Your task to perform on an android device: toggle javascript in the chrome app Image 0: 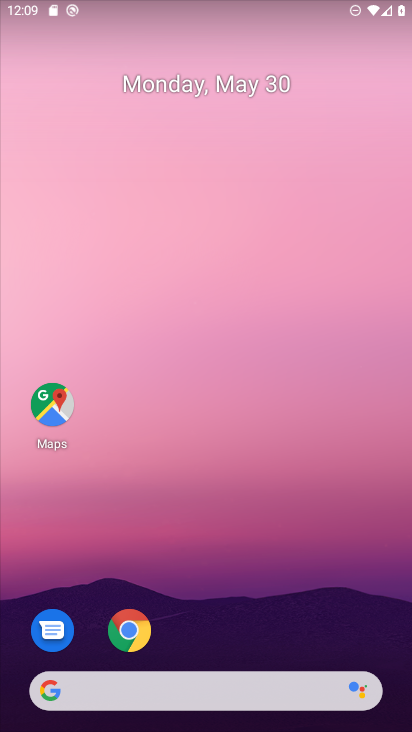
Step 0: drag from (191, 568) to (148, 229)
Your task to perform on an android device: toggle javascript in the chrome app Image 1: 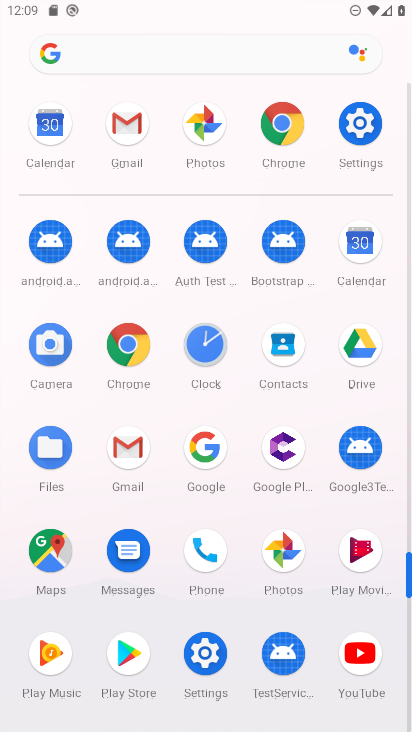
Step 1: click (290, 124)
Your task to perform on an android device: toggle javascript in the chrome app Image 2: 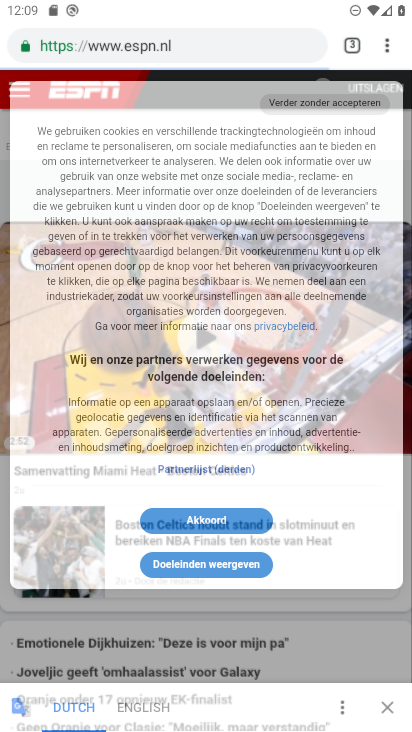
Step 2: drag from (378, 42) to (226, 550)
Your task to perform on an android device: toggle javascript in the chrome app Image 3: 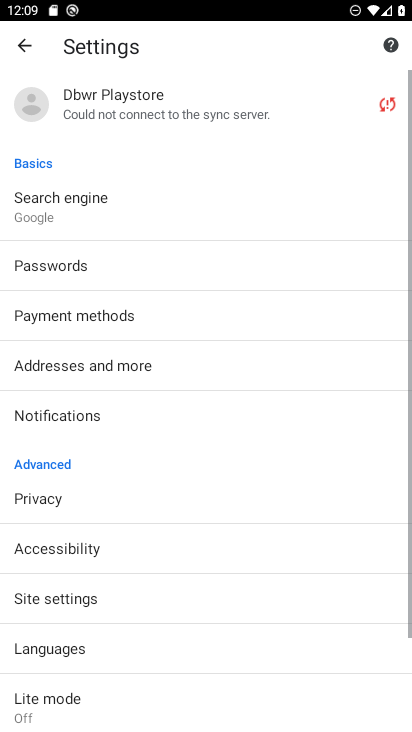
Step 3: drag from (110, 532) to (86, 110)
Your task to perform on an android device: toggle javascript in the chrome app Image 4: 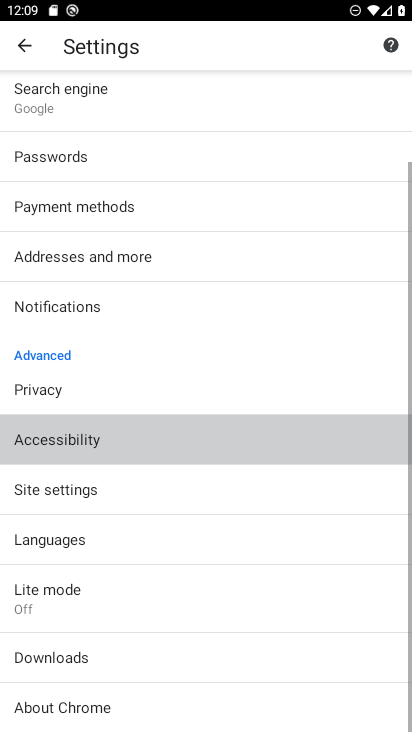
Step 4: drag from (63, 498) to (41, 32)
Your task to perform on an android device: toggle javascript in the chrome app Image 5: 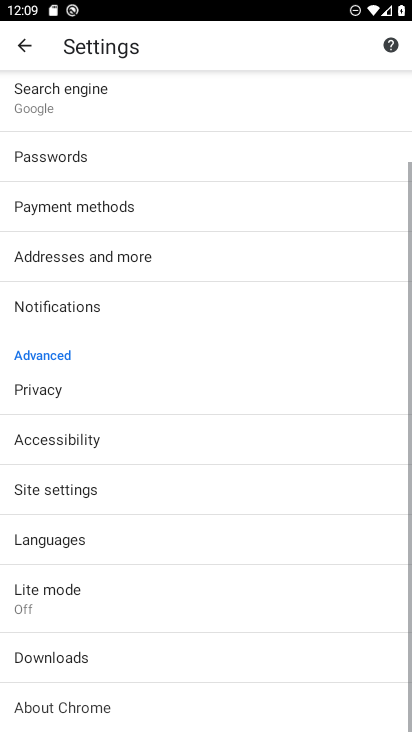
Step 5: drag from (95, 479) to (93, 14)
Your task to perform on an android device: toggle javascript in the chrome app Image 6: 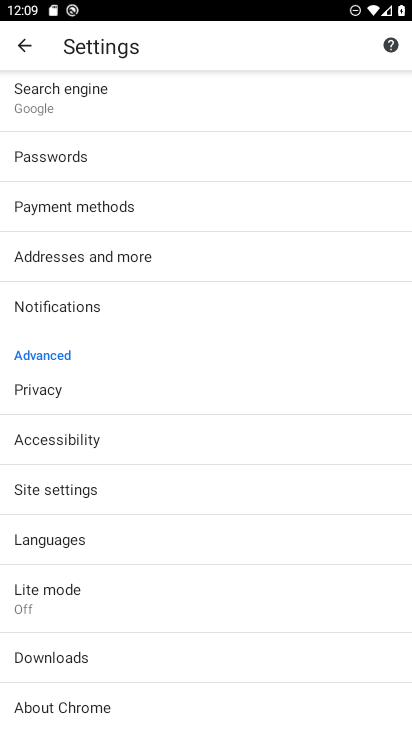
Step 6: click (44, 489)
Your task to perform on an android device: toggle javascript in the chrome app Image 7: 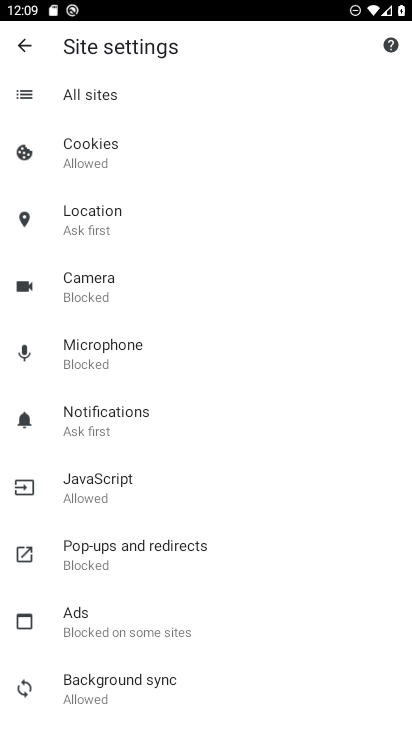
Step 7: click (92, 470)
Your task to perform on an android device: toggle javascript in the chrome app Image 8: 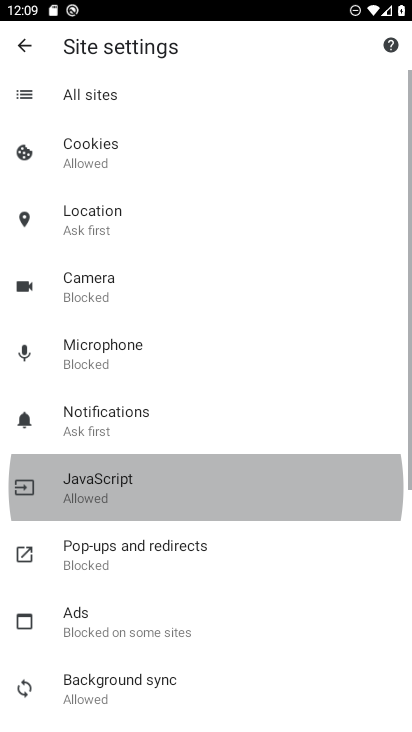
Step 8: click (94, 474)
Your task to perform on an android device: toggle javascript in the chrome app Image 9: 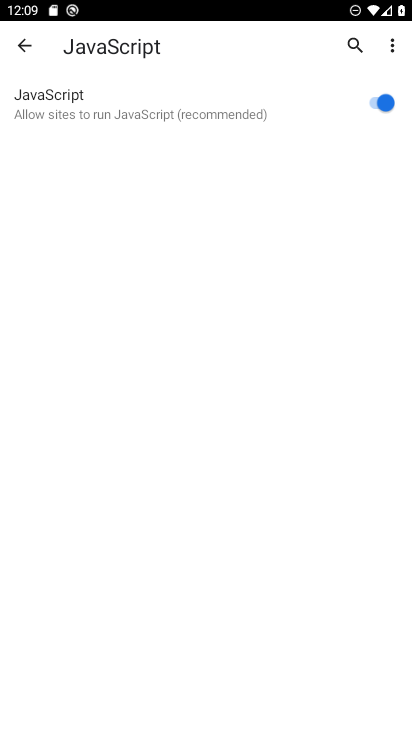
Step 9: task complete